Your task to perform on an android device: set the stopwatch Image 0: 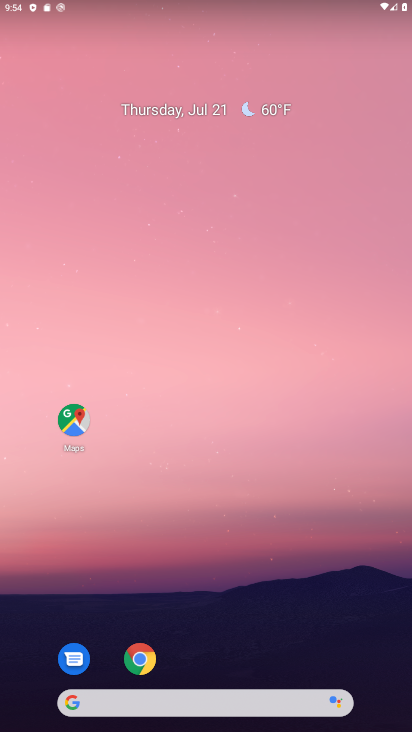
Step 0: drag from (243, 691) to (290, 251)
Your task to perform on an android device: set the stopwatch Image 1: 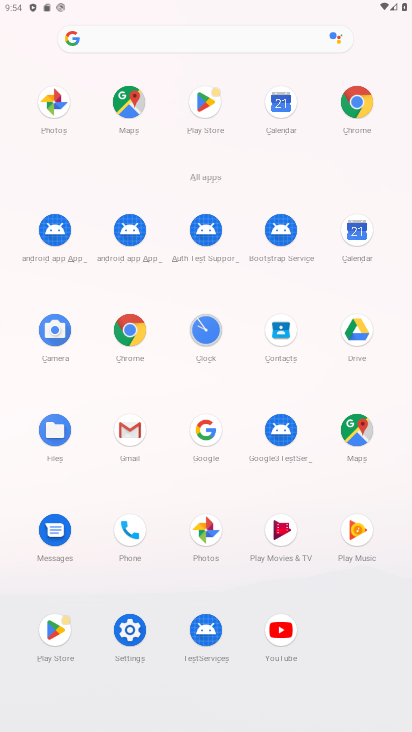
Step 1: click (209, 334)
Your task to perform on an android device: set the stopwatch Image 2: 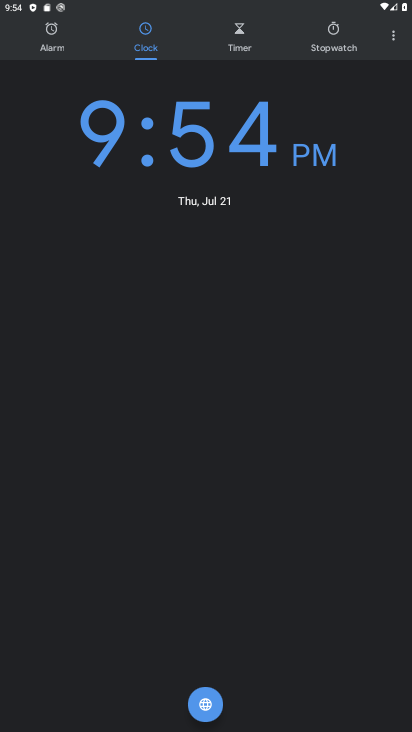
Step 2: click (319, 47)
Your task to perform on an android device: set the stopwatch Image 3: 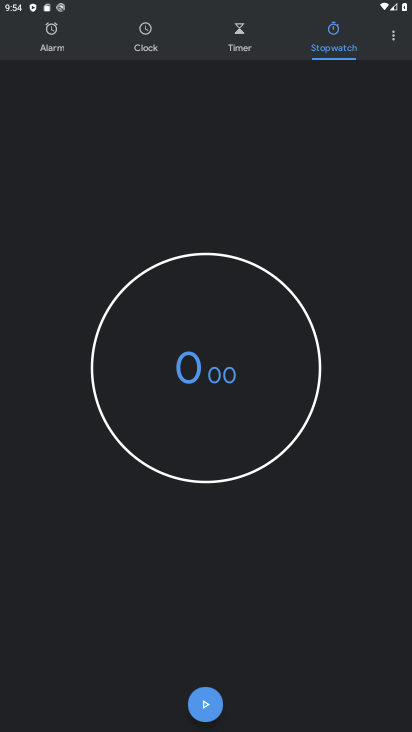
Step 3: click (213, 701)
Your task to perform on an android device: set the stopwatch Image 4: 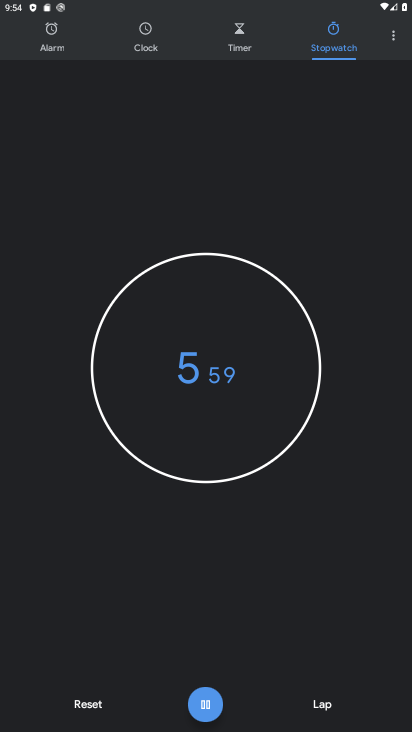
Step 4: click (212, 701)
Your task to perform on an android device: set the stopwatch Image 5: 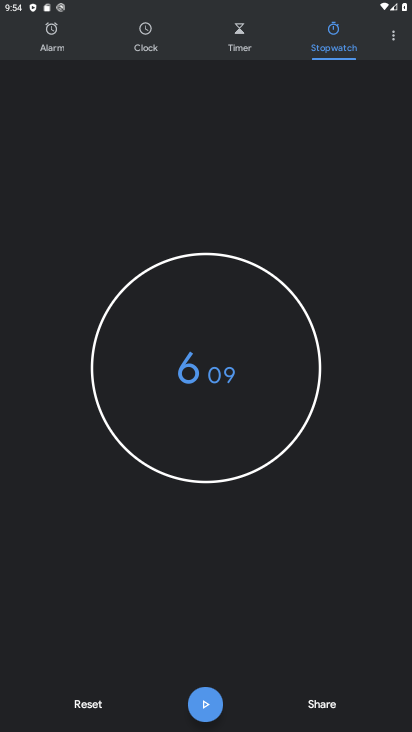
Step 5: task complete